Your task to perform on an android device: open app "Google Chrome" (install if not already installed) Image 0: 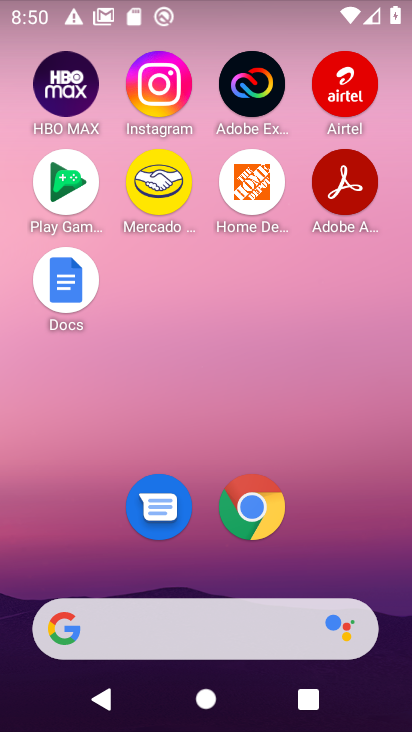
Step 0: click (256, 509)
Your task to perform on an android device: open app "Google Chrome" (install if not already installed) Image 1: 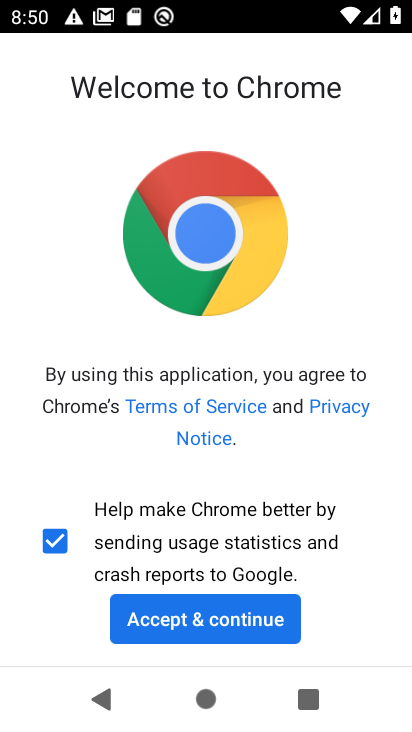
Step 1: click (194, 616)
Your task to perform on an android device: open app "Google Chrome" (install if not already installed) Image 2: 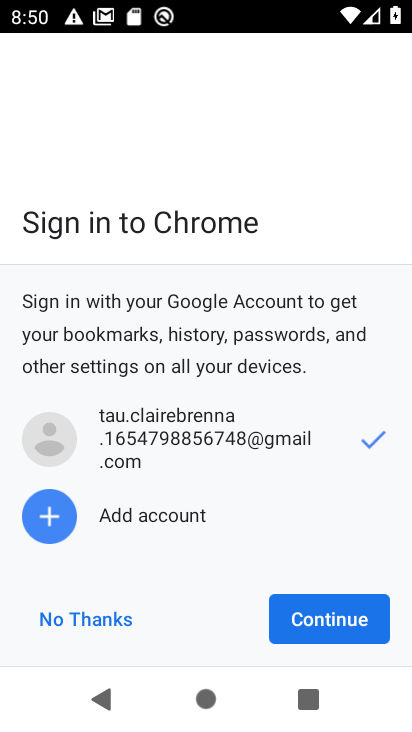
Step 2: click (282, 625)
Your task to perform on an android device: open app "Google Chrome" (install if not already installed) Image 3: 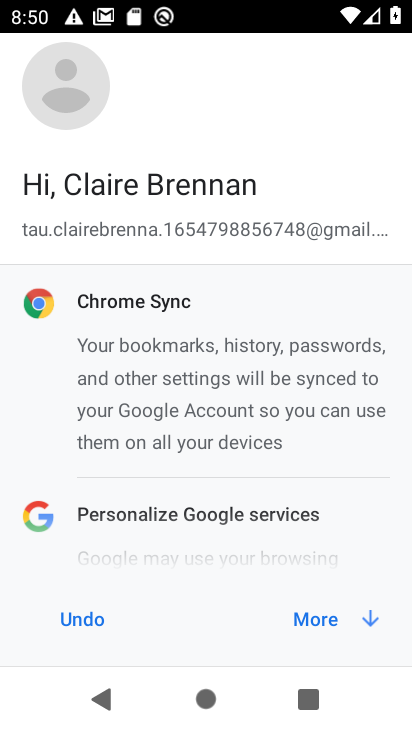
Step 3: click (307, 626)
Your task to perform on an android device: open app "Google Chrome" (install if not already installed) Image 4: 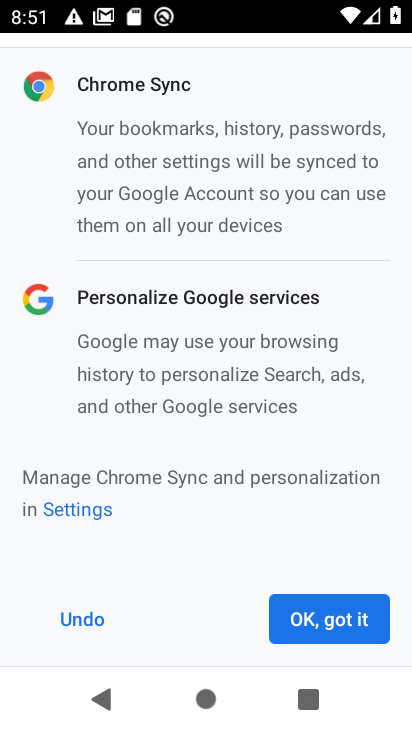
Step 4: click (307, 626)
Your task to perform on an android device: open app "Google Chrome" (install if not already installed) Image 5: 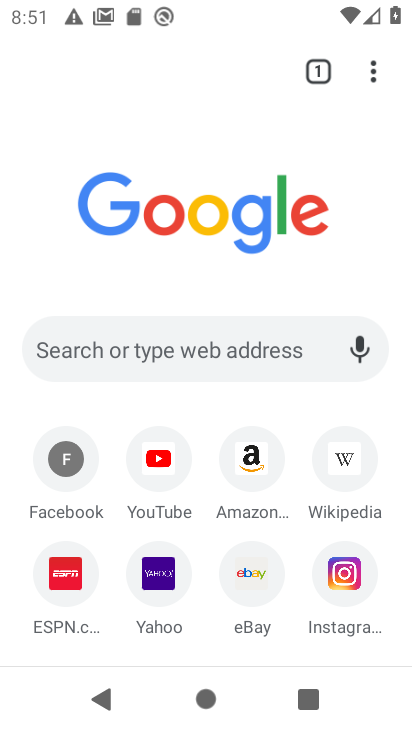
Step 5: task complete